Your task to perform on an android device: read, delete, or share a saved page in the chrome app Image 0: 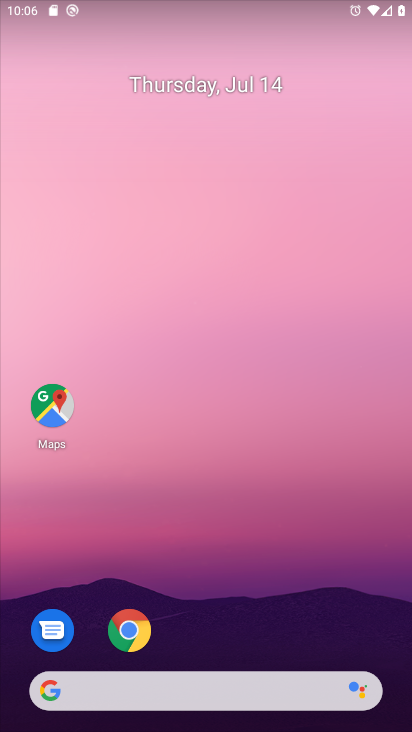
Step 0: drag from (10, 523) to (104, 47)
Your task to perform on an android device: read, delete, or share a saved page in the chrome app Image 1: 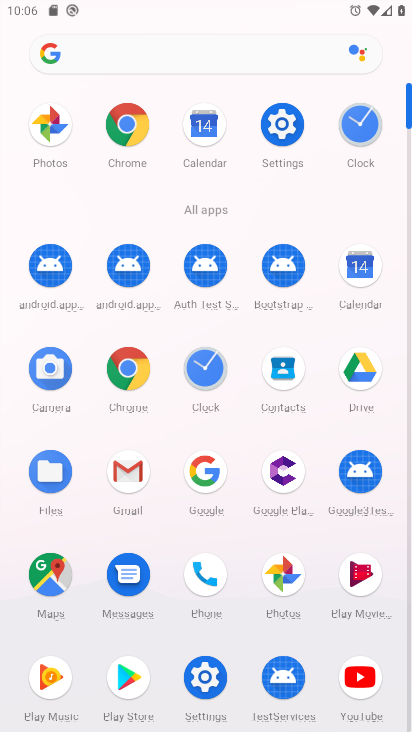
Step 1: click (120, 361)
Your task to perform on an android device: read, delete, or share a saved page in the chrome app Image 2: 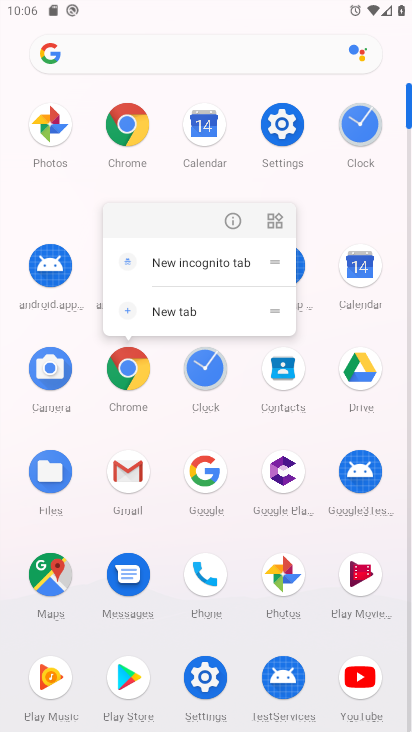
Step 2: click (222, 225)
Your task to perform on an android device: read, delete, or share a saved page in the chrome app Image 3: 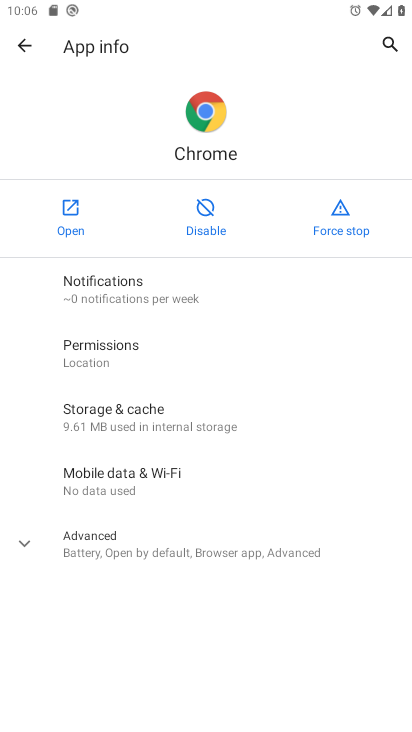
Step 3: click (75, 224)
Your task to perform on an android device: read, delete, or share a saved page in the chrome app Image 4: 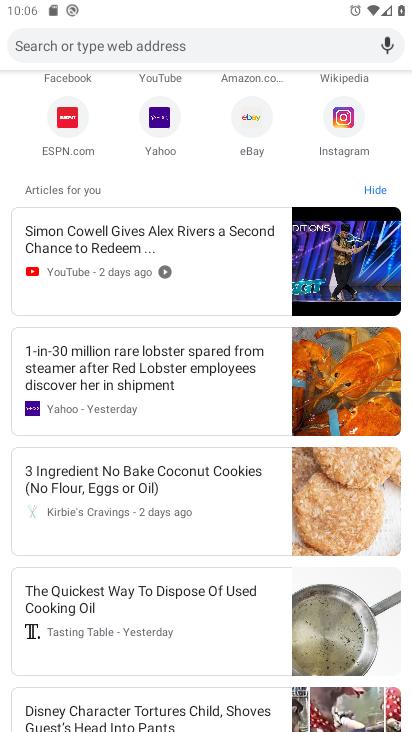
Step 4: drag from (279, 141) to (315, 625)
Your task to perform on an android device: read, delete, or share a saved page in the chrome app Image 5: 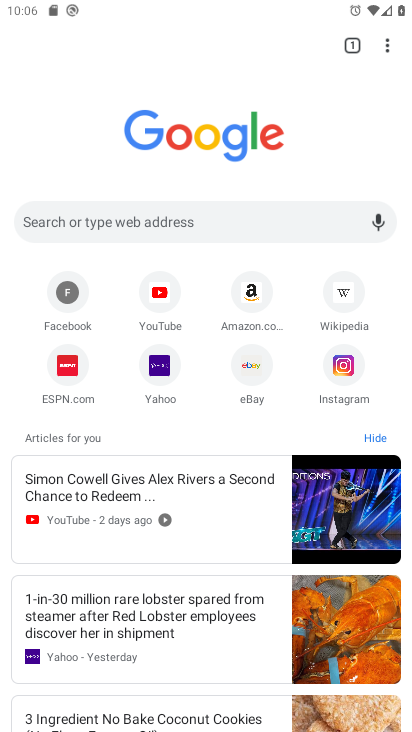
Step 5: click (389, 46)
Your task to perform on an android device: read, delete, or share a saved page in the chrome app Image 6: 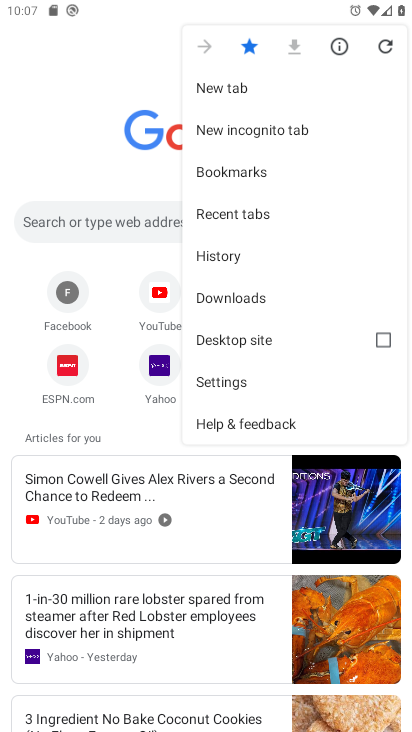
Step 6: click (271, 172)
Your task to perform on an android device: read, delete, or share a saved page in the chrome app Image 7: 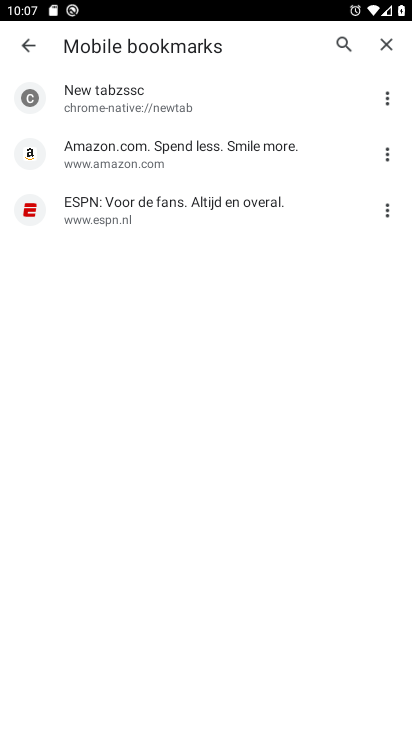
Step 7: drag from (215, 479) to (242, 230)
Your task to perform on an android device: read, delete, or share a saved page in the chrome app Image 8: 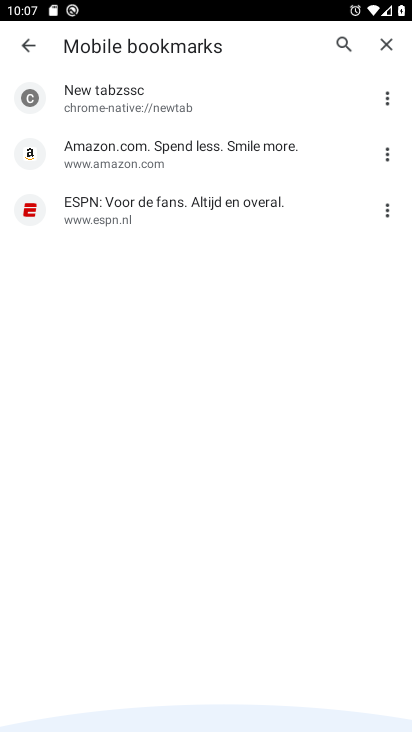
Step 8: drag from (262, 128) to (247, 472)
Your task to perform on an android device: read, delete, or share a saved page in the chrome app Image 9: 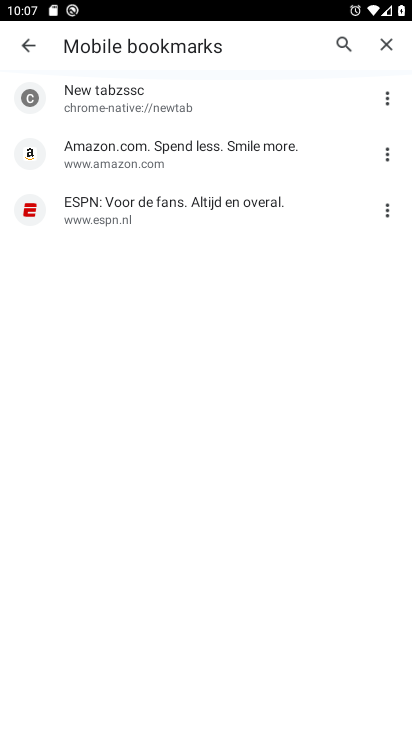
Step 9: drag from (230, 408) to (242, 298)
Your task to perform on an android device: read, delete, or share a saved page in the chrome app Image 10: 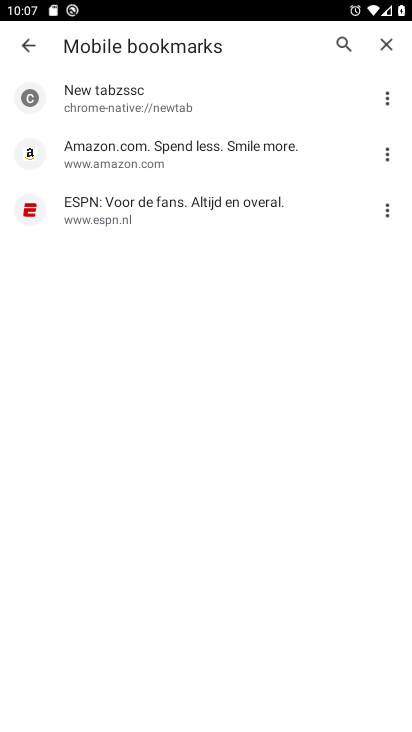
Step 10: drag from (309, 215) to (255, 496)
Your task to perform on an android device: read, delete, or share a saved page in the chrome app Image 11: 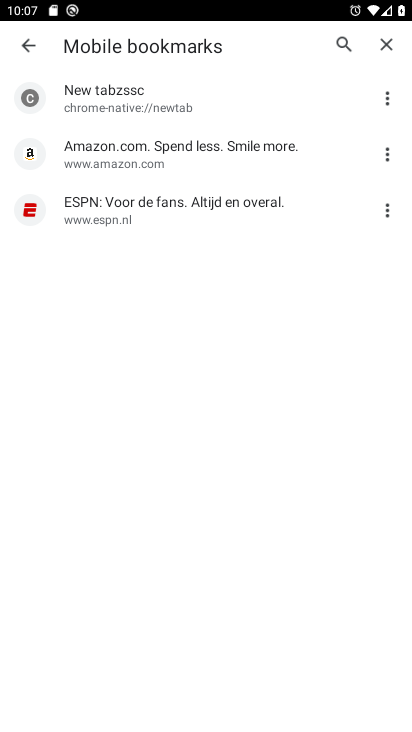
Step 11: drag from (250, 279) to (301, 528)
Your task to perform on an android device: read, delete, or share a saved page in the chrome app Image 12: 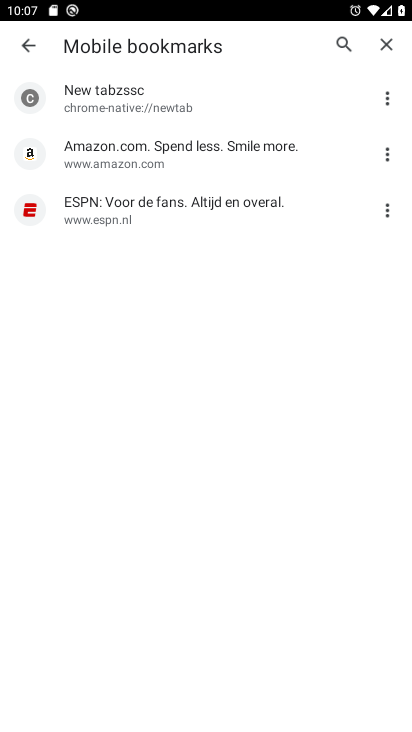
Step 12: drag from (160, 235) to (179, 581)
Your task to perform on an android device: read, delete, or share a saved page in the chrome app Image 13: 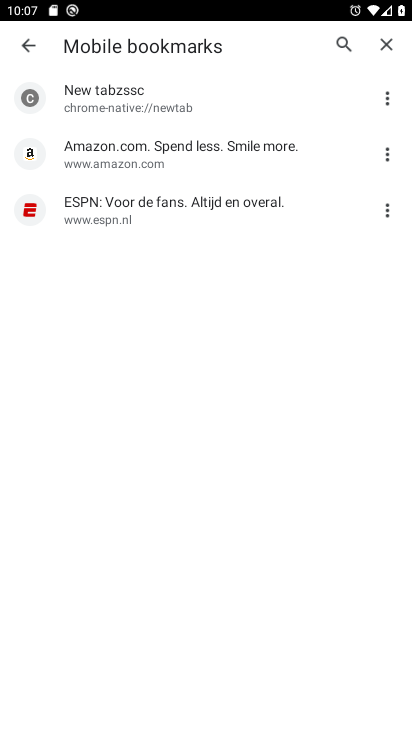
Step 13: drag from (57, 426) to (205, 653)
Your task to perform on an android device: read, delete, or share a saved page in the chrome app Image 14: 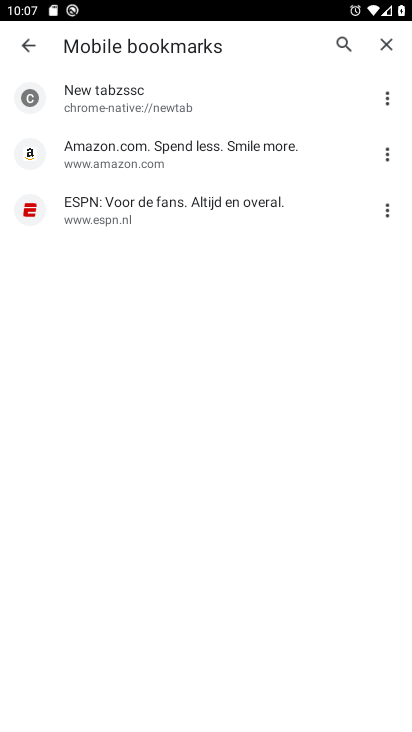
Step 14: drag from (284, 371) to (394, 705)
Your task to perform on an android device: read, delete, or share a saved page in the chrome app Image 15: 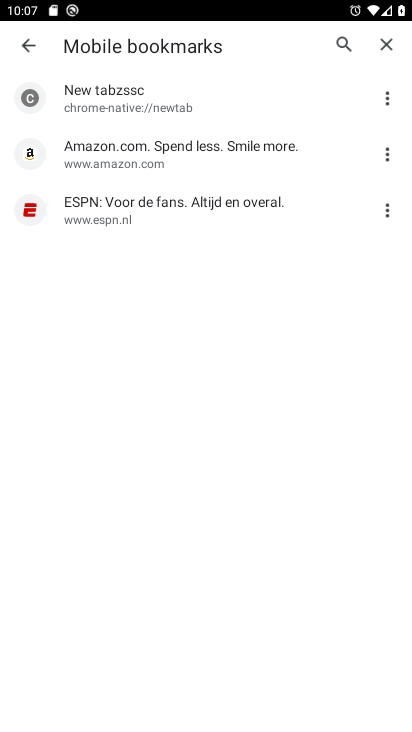
Step 15: click (157, 154)
Your task to perform on an android device: read, delete, or share a saved page in the chrome app Image 16: 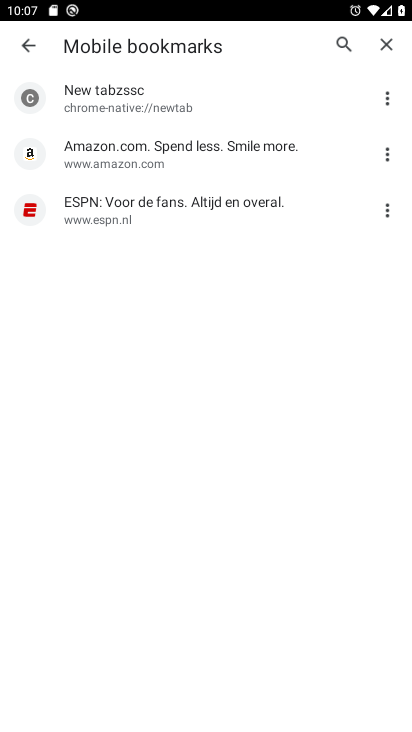
Step 16: task complete